Your task to perform on an android device: open app "LinkedIn" (install if not already installed), go to login, and select forgot password Image 0: 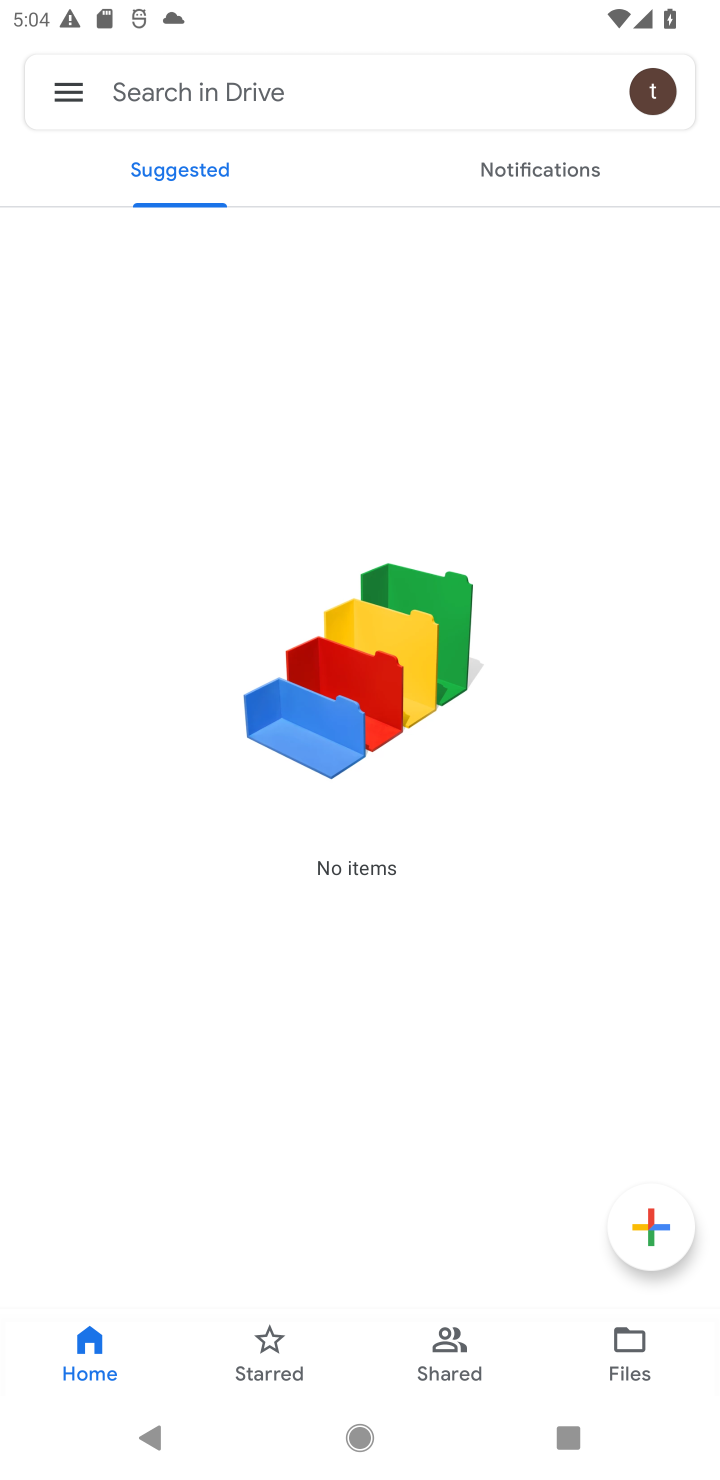
Step 0: press home button
Your task to perform on an android device: open app "LinkedIn" (install if not already installed), go to login, and select forgot password Image 1: 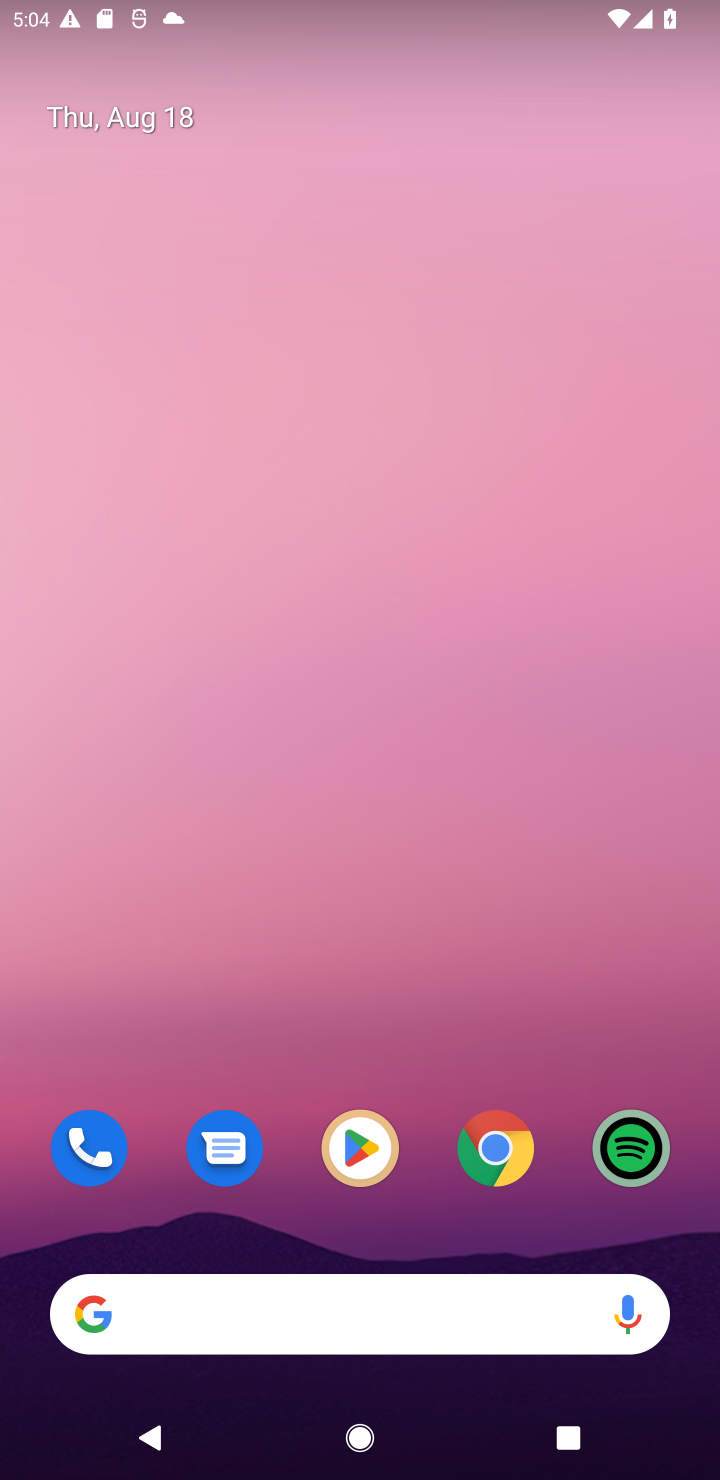
Step 1: drag from (101, 1261) to (204, 132)
Your task to perform on an android device: open app "LinkedIn" (install if not already installed), go to login, and select forgot password Image 2: 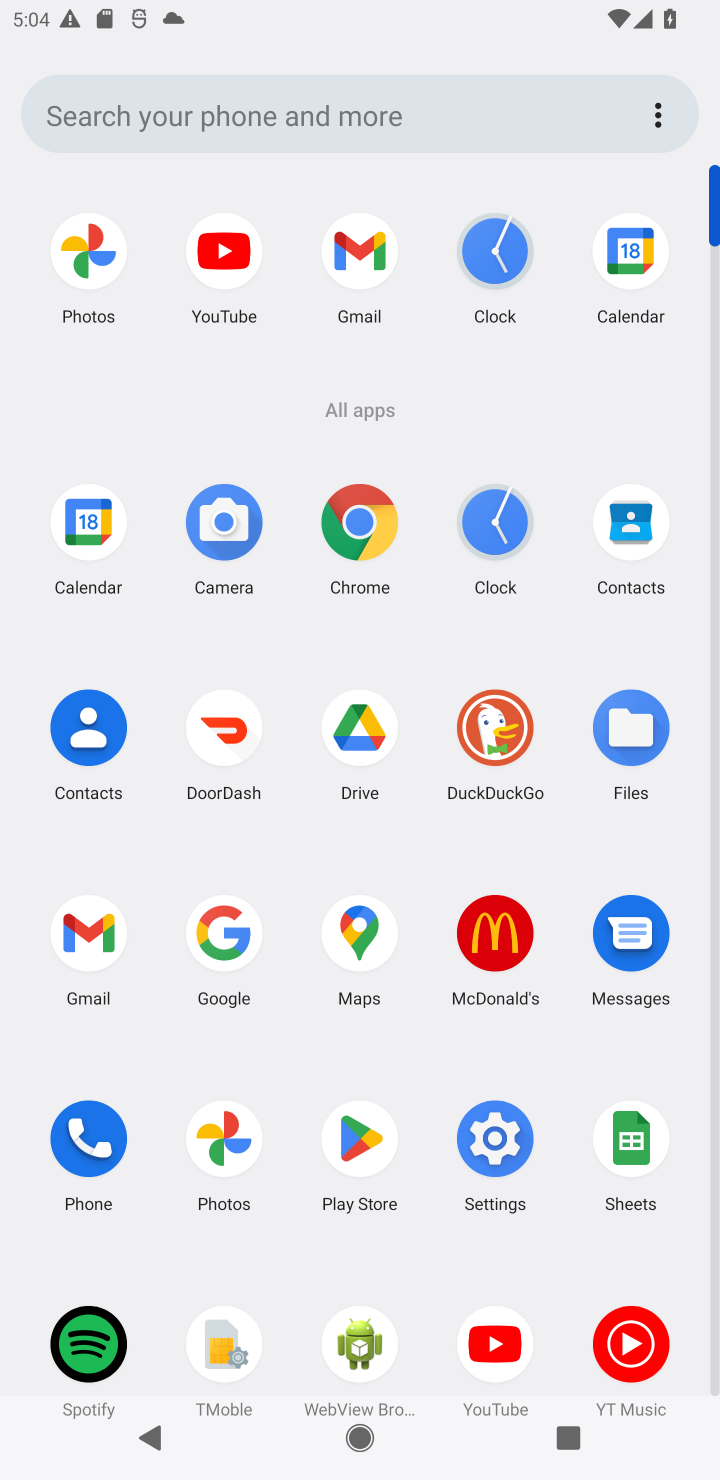
Step 2: click (365, 1151)
Your task to perform on an android device: open app "LinkedIn" (install if not already installed), go to login, and select forgot password Image 3: 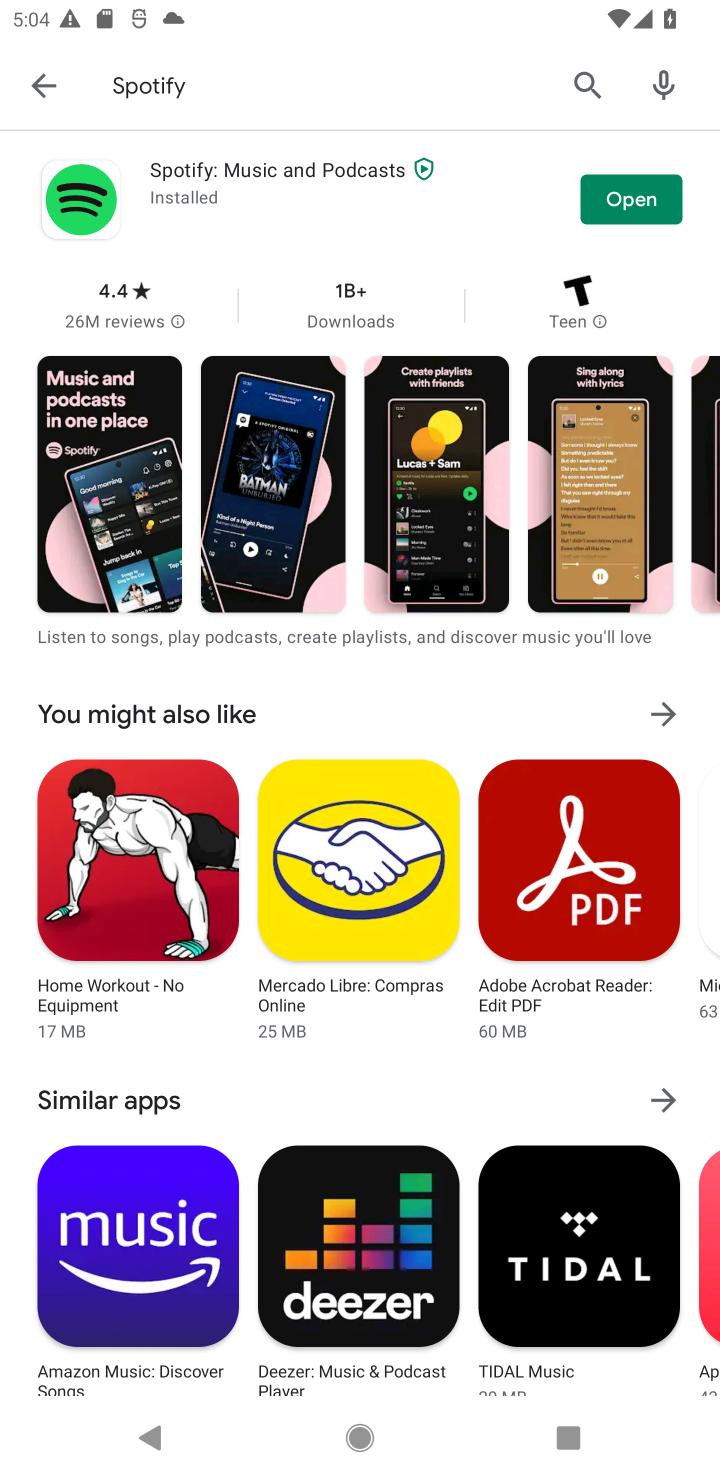
Step 3: click (32, 78)
Your task to perform on an android device: open app "LinkedIn" (install if not already installed), go to login, and select forgot password Image 4: 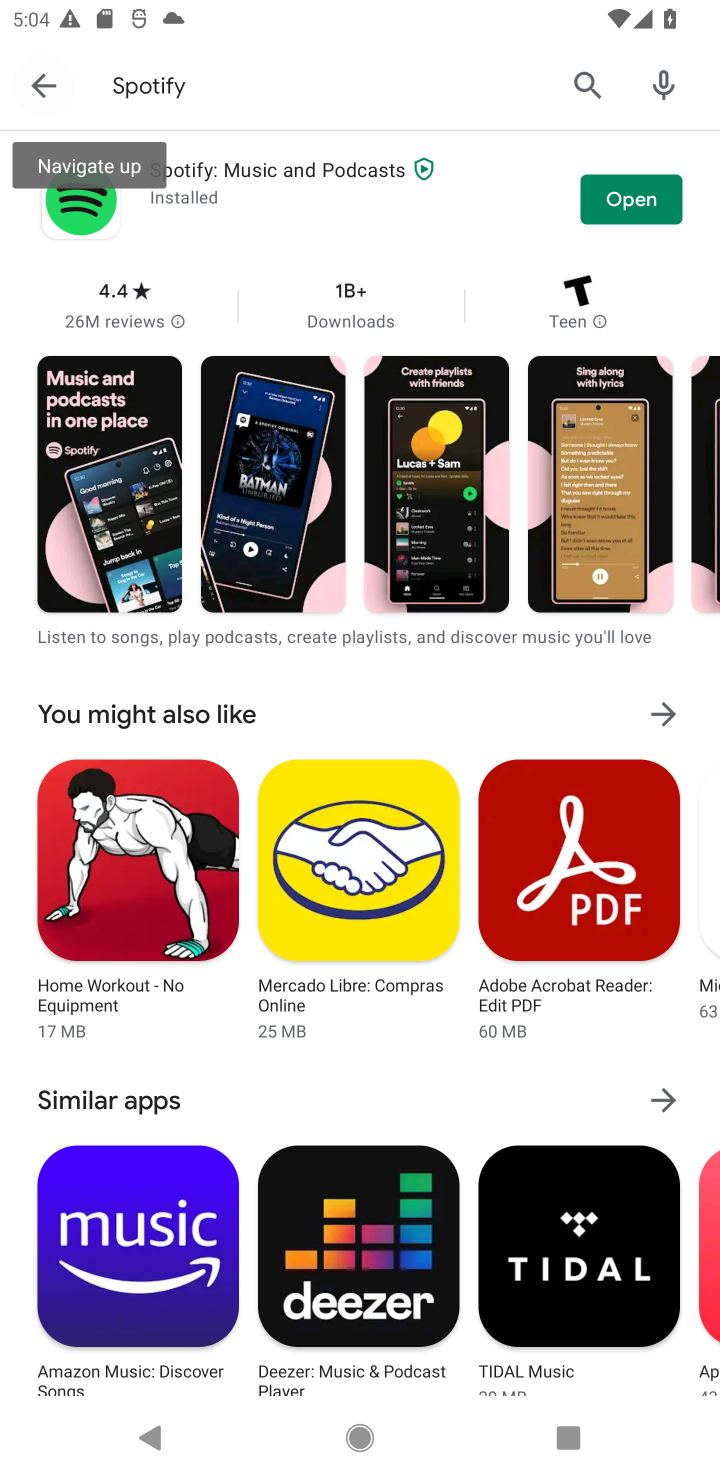
Step 4: press back button
Your task to perform on an android device: open app "LinkedIn" (install if not already installed), go to login, and select forgot password Image 5: 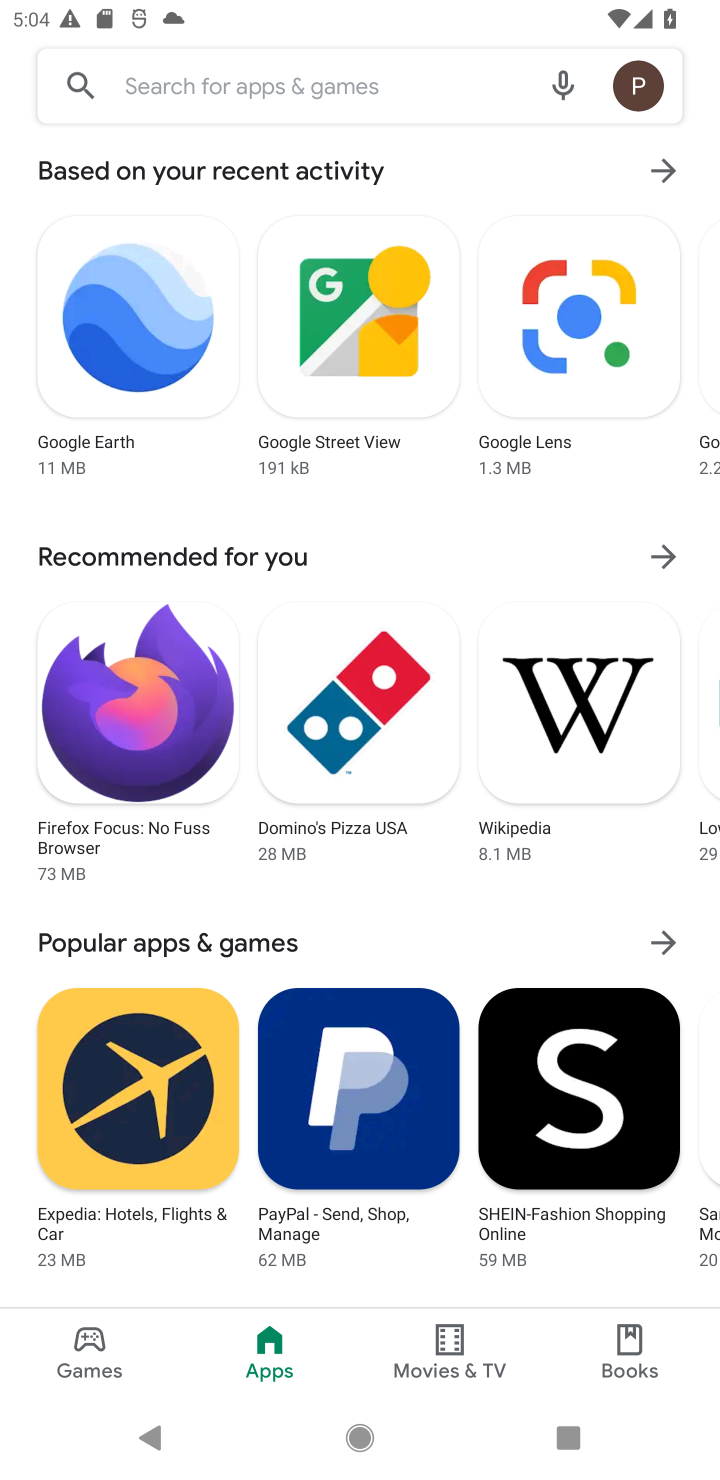
Step 5: click (204, 87)
Your task to perform on an android device: open app "LinkedIn" (install if not already installed), go to login, and select forgot password Image 6: 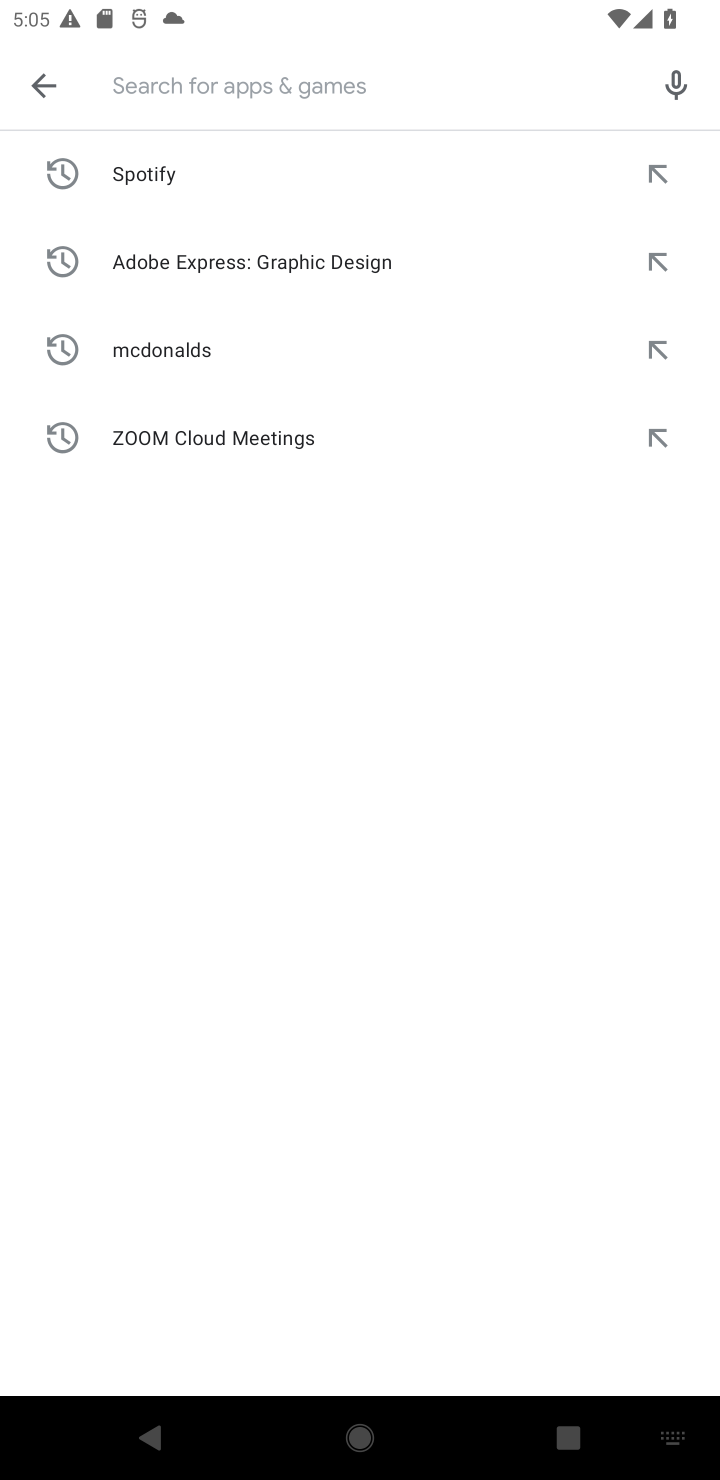
Step 6: type "LinkedIn"
Your task to perform on an android device: open app "LinkedIn" (install if not already installed), go to login, and select forgot password Image 7: 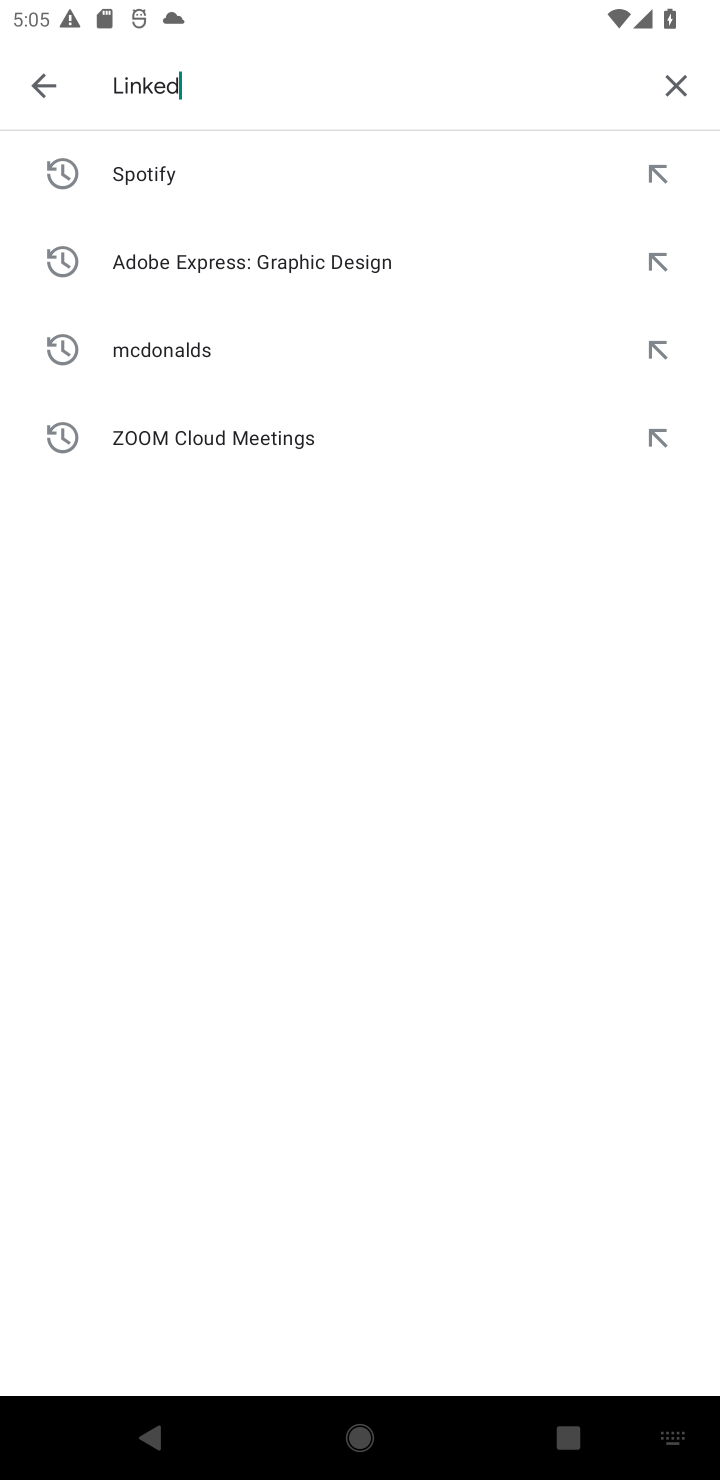
Step 7: press enter
Your task to perform on an android device: open app "LinkedIn" (install if not already installed), go to login, and select forgot password Image 8: 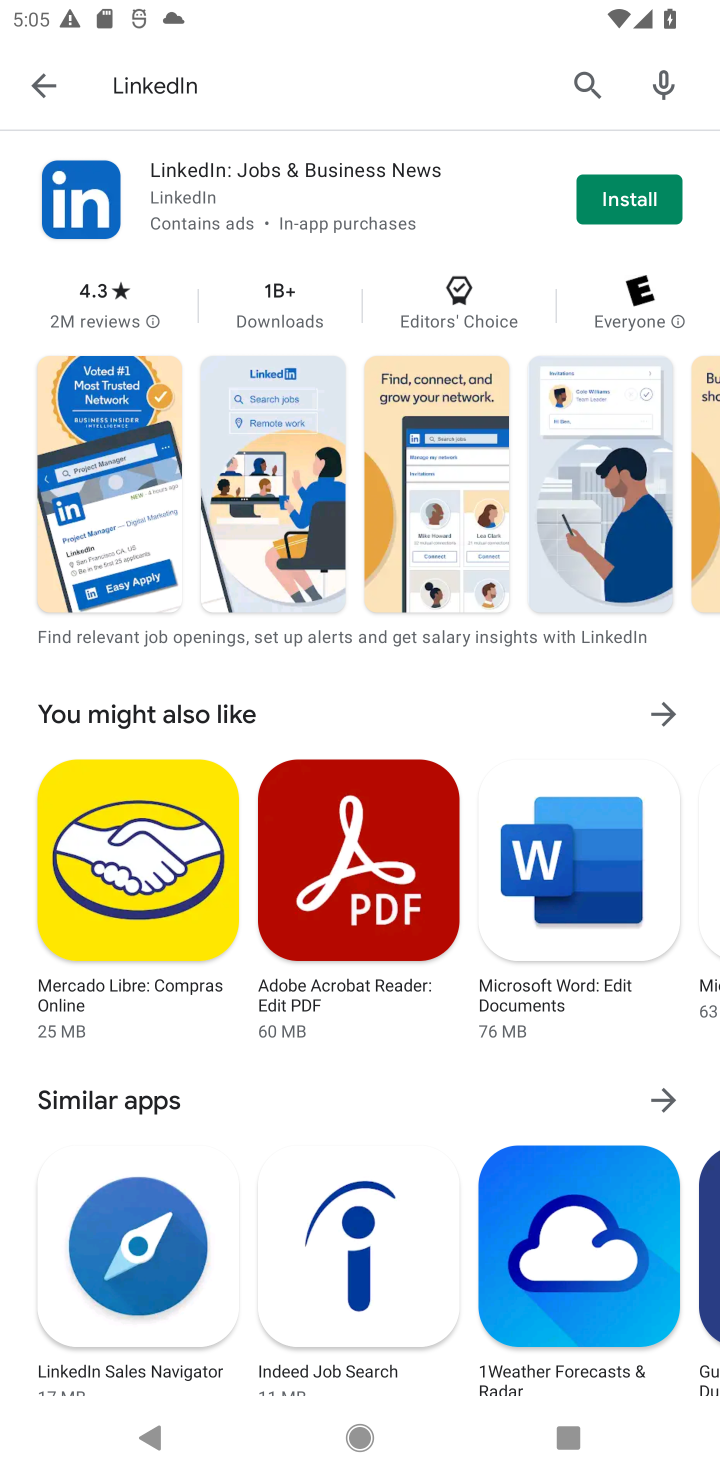
Step 8: click (640, 189)
Your task to perform on an android device: open app "LinkedIn" (install if not already installed), go to login, and select forgot password Image 9: 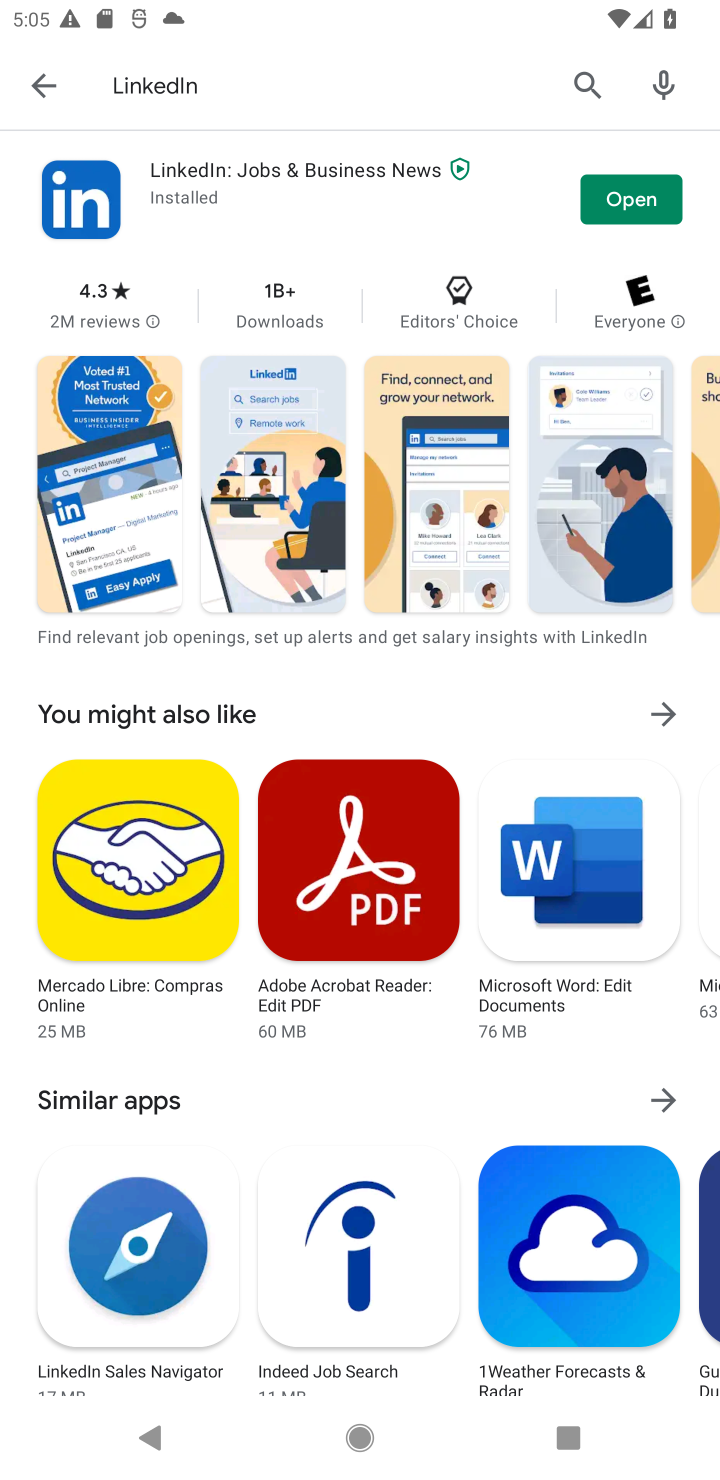
Step 9: click (632, 184)
Your task to perform on an android device: open app "LinkedIn" (install if not already installed), go to login, and select forgot password Image 10: 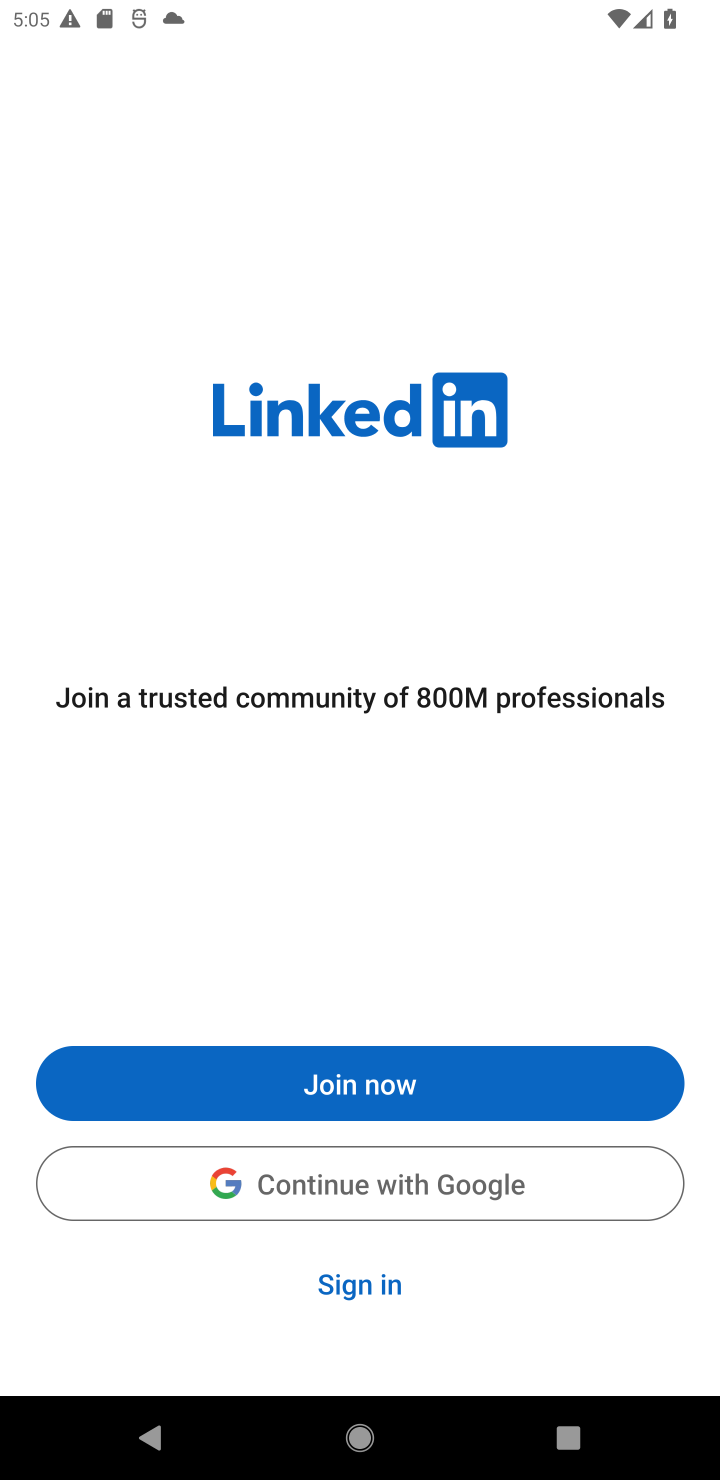
Step 10: click (267, 1084)
Your task to perform on an android device: open app "LinkedIn" (install if not already installed), go to login, and select forgot password Image 11: 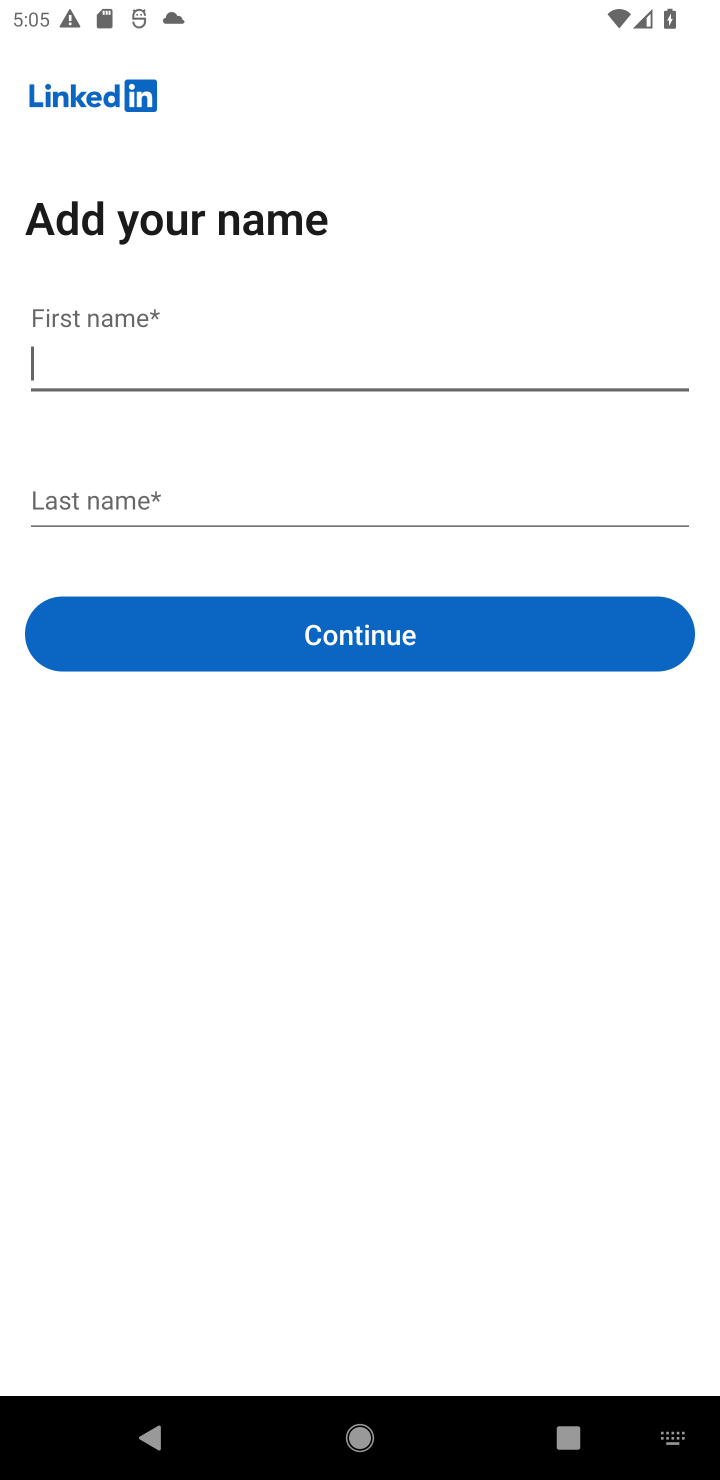
Step 11: press back button
Your task to perform on an android device: open app "LinkedIn" (install if not already installed), go to login, and select forgot password Image 12: 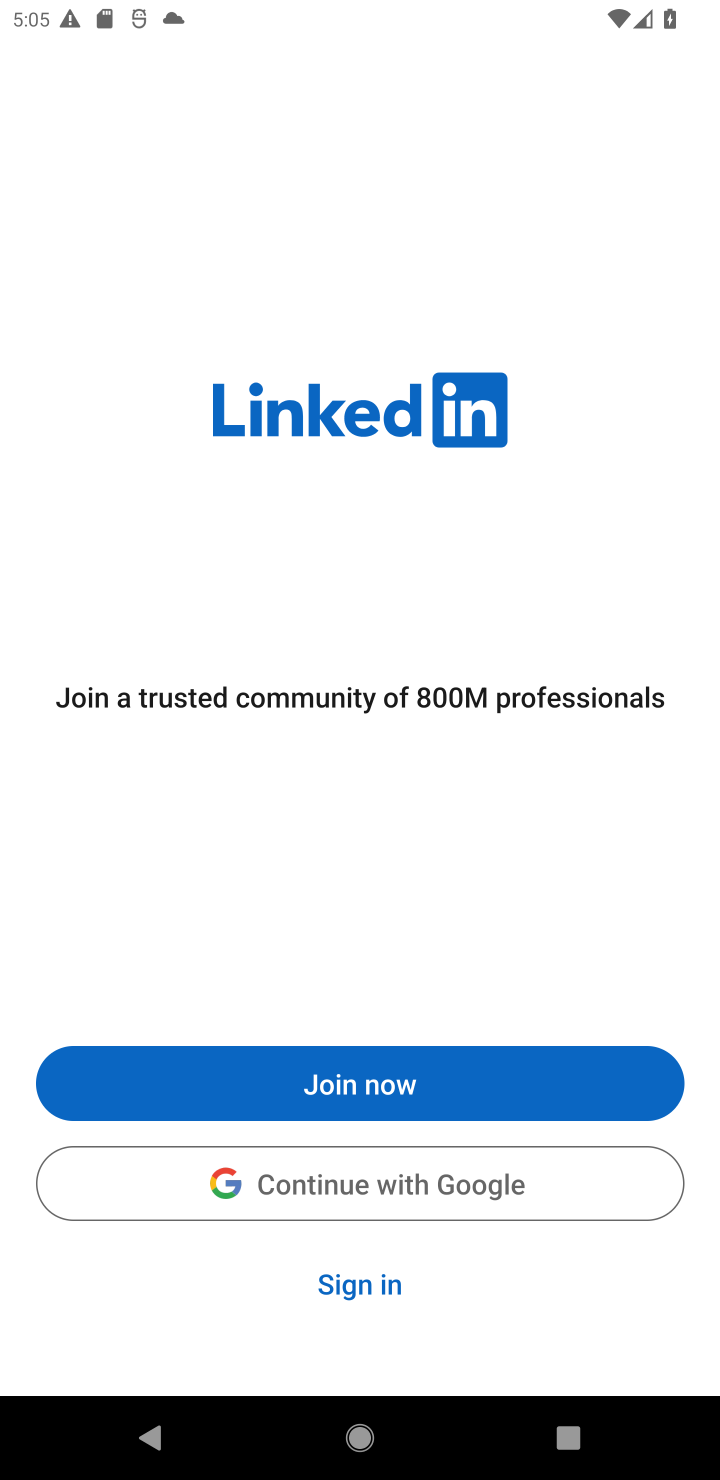
Step 12: click (359, 1290)
Your task to perform on an android device: open app "LinkedIn" (install if not already installed), go to login, and select forgot password Image 13: 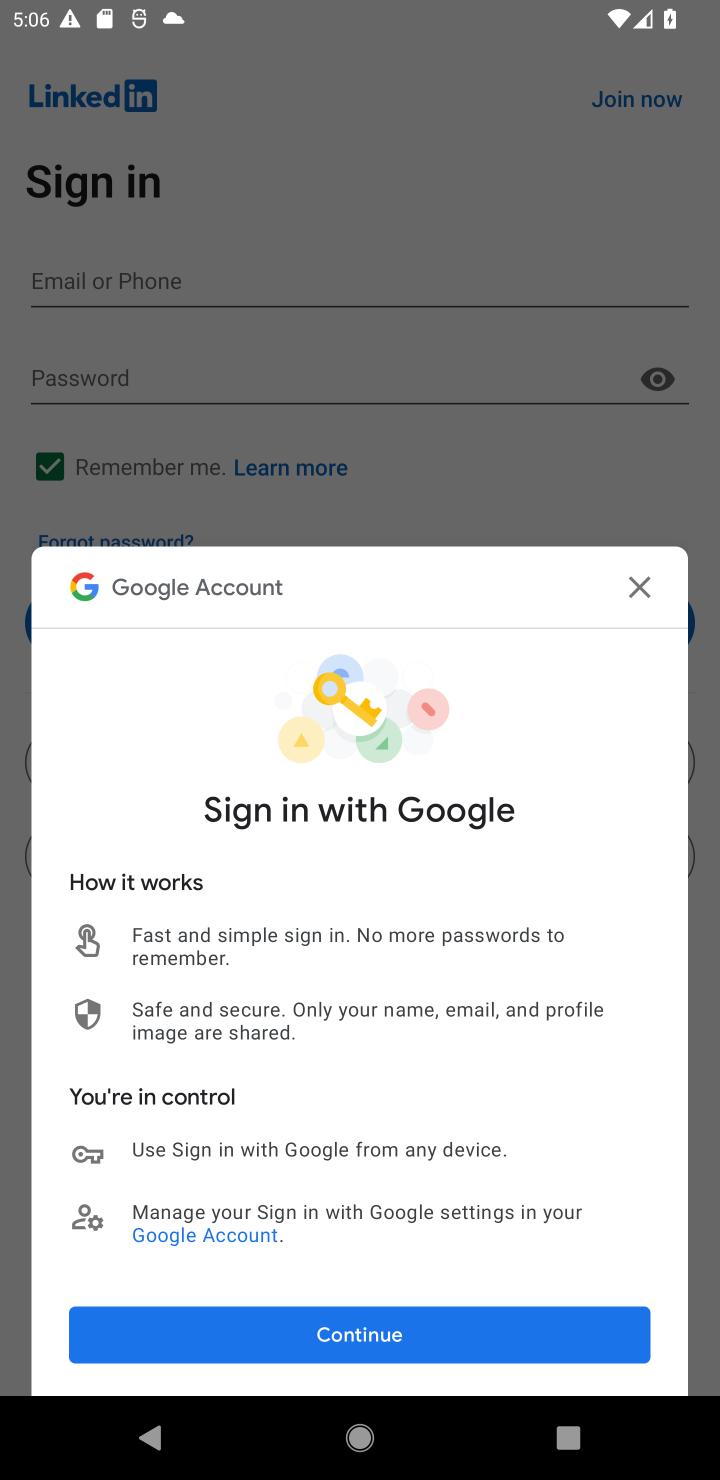
Step 13: click (632, 574)
Your task to perform on an android device: open app "LinkedIn" (install if not already installed), go to login, and select forgot password Image 14: 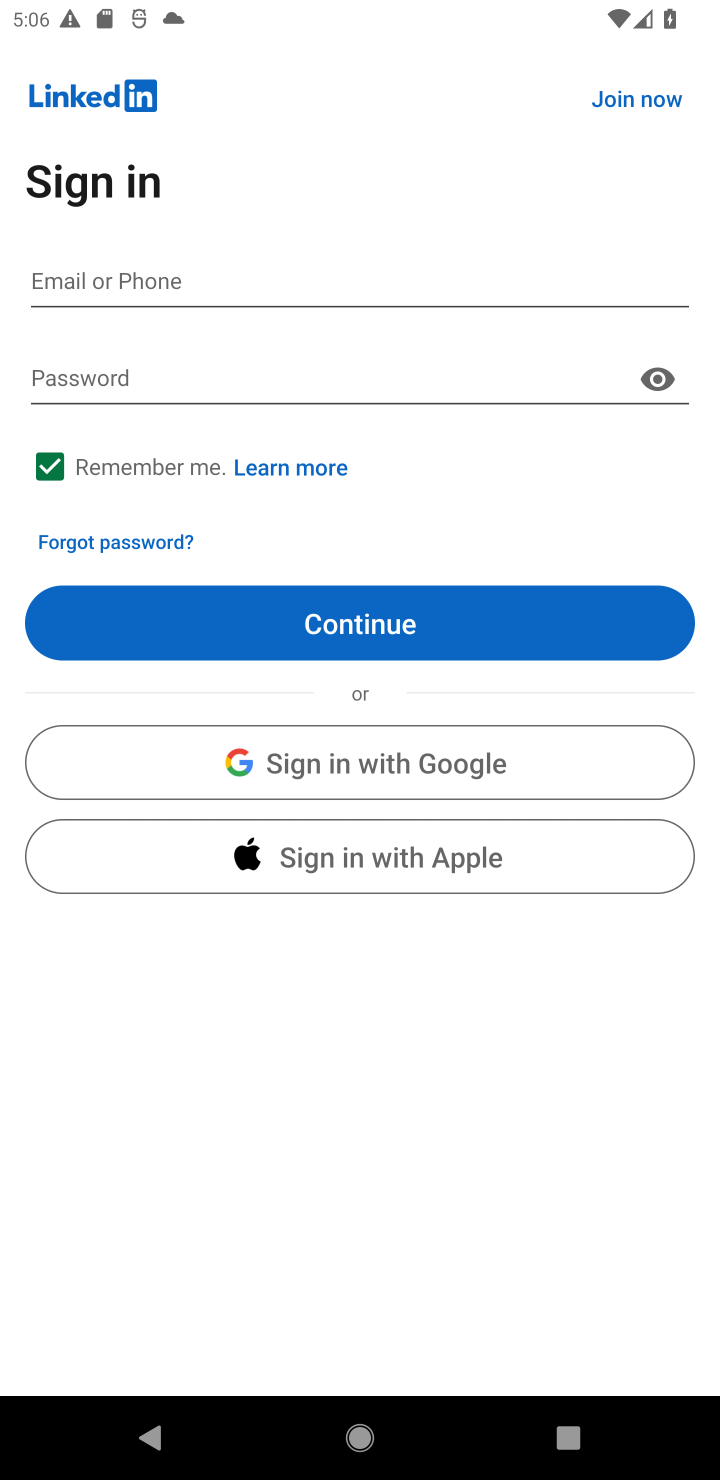
Step 14: click (121, 551)
Your task to perform on an android device: open app "LinkedIn" (install if not already installed), go to login, and select forgot password Image 15: 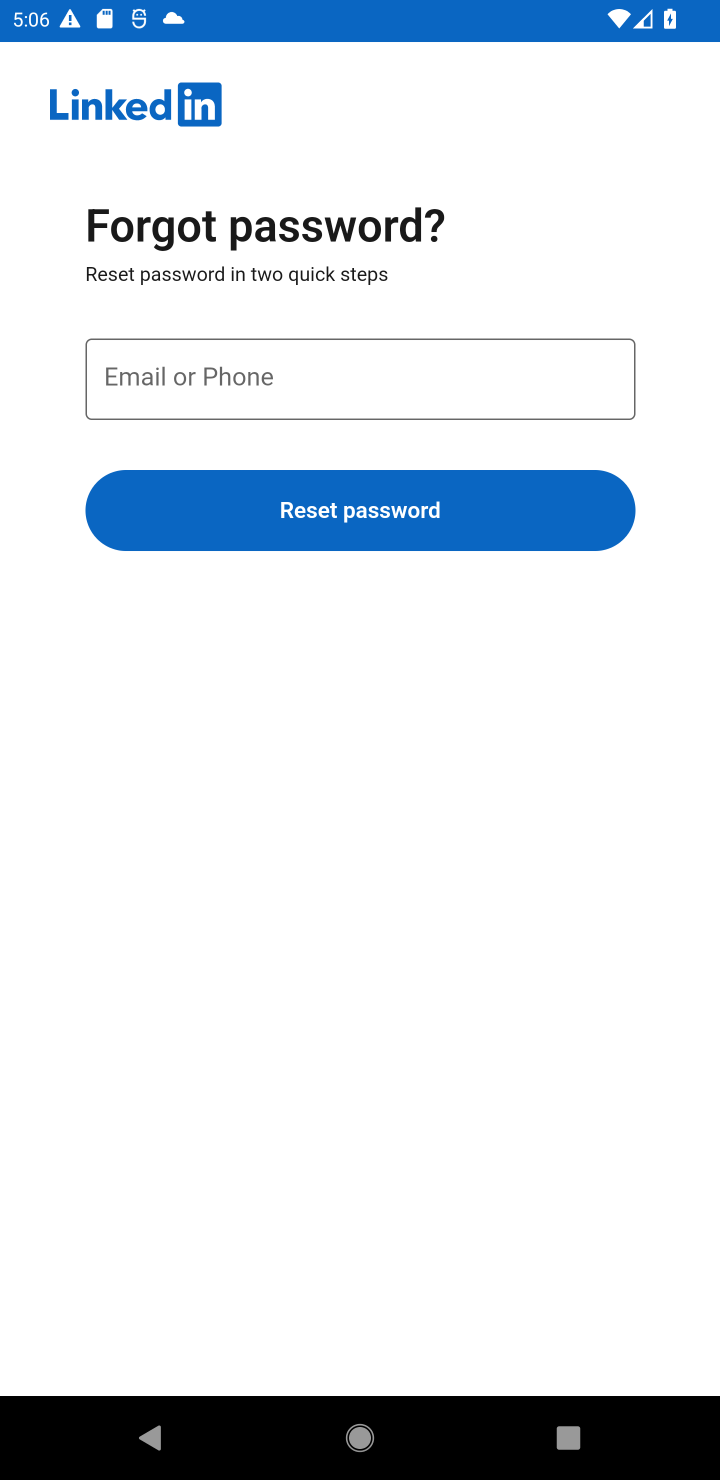
Step 15: task complete